Your task to perform on an android device: Open Maps and search for coffee Image 0: 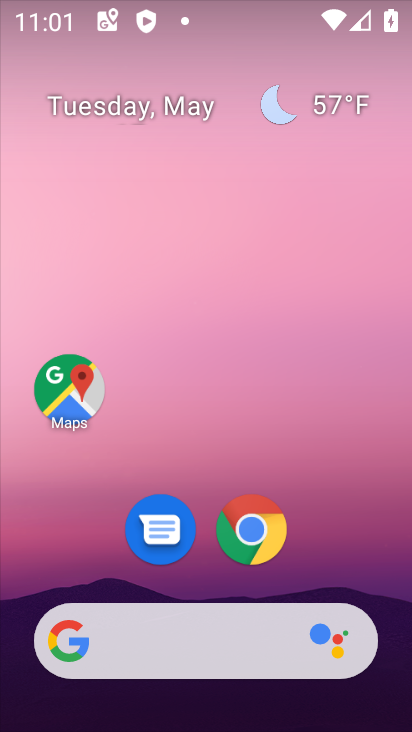
Step 0: click (79, 379)
Your task to perform on an android device: Open Maps and search for coffee Image 1: 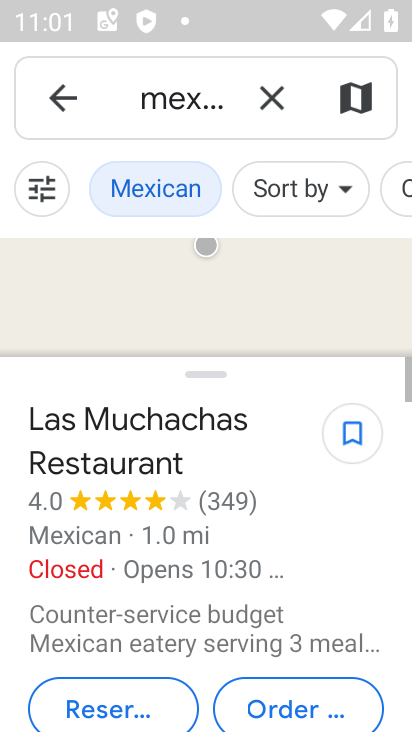
Step 1: click (283, 90)
Your task to perform on an android device: Open Maps and search for coffee Image 2: 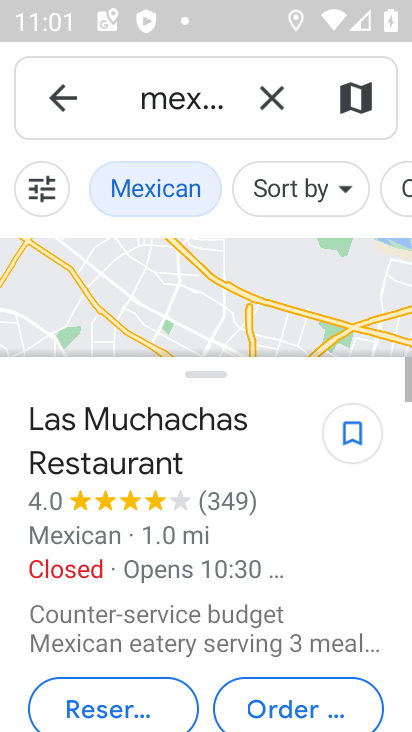
Step 2: click (267, 104)
Your task to perform on an android device: Open Maps and search for coffee Image 3: 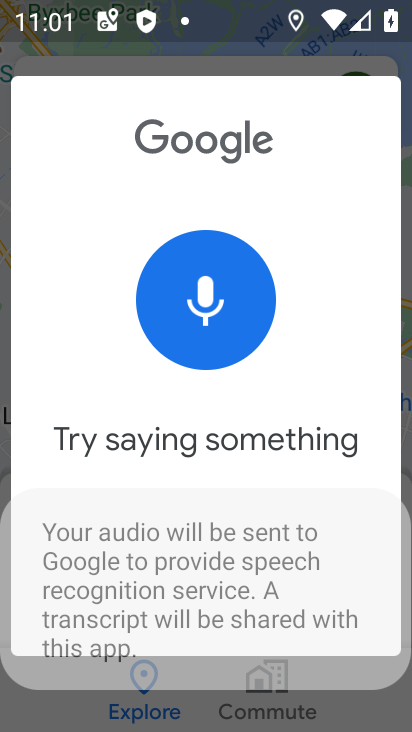
Step 3: press back button
Your task to perform on an android device: Open Maps and search for coffee Image 4: 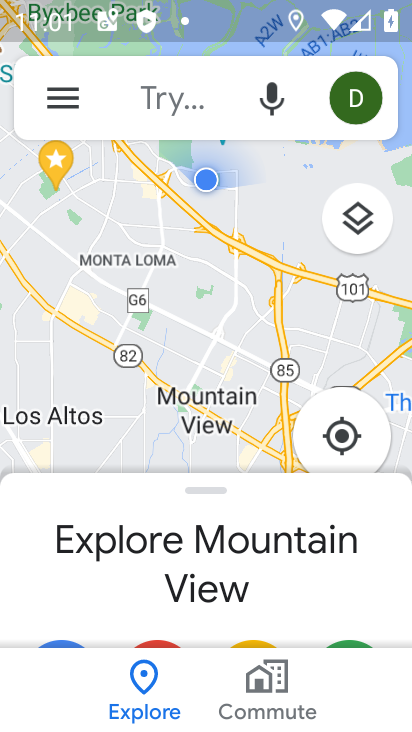
Step 4: click (136, 108)
Your task to perform on an android device: Open Maps and search for coffee Image 5: 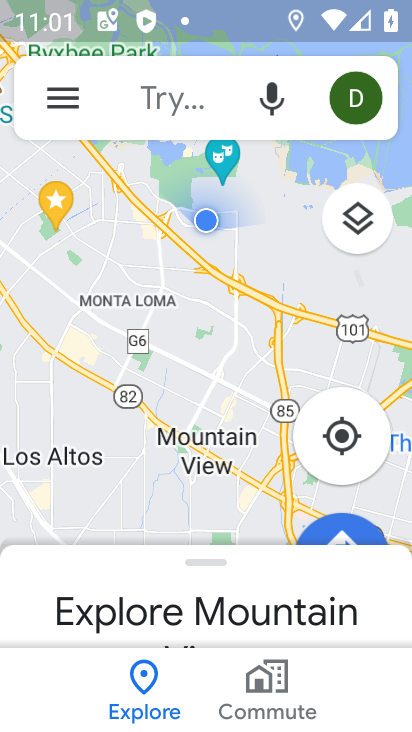
Step 5: click (138, 94)
Your task to perform on an android device: Open Maps and search for coffee Image 6: 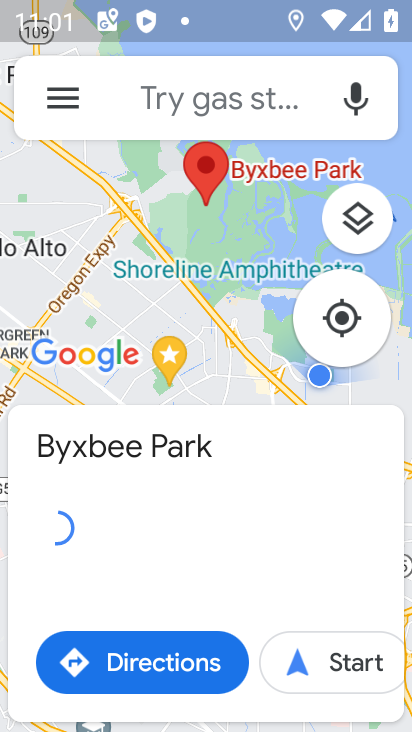
Step 6: click (178, 97)
Your task to perform on an android device: Open Maps and search for coffee Image 7: 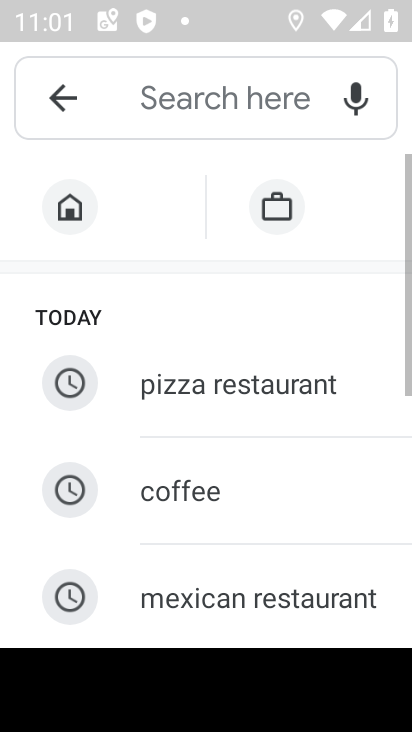
Step 7: click (171, 481)
Your task to perform on an android device: Open Maps and search for coffee Image 8: 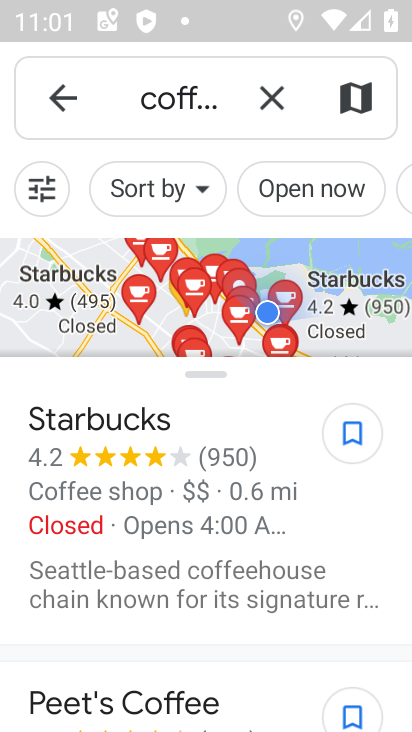
Step 8: task complete